Your task to perform on an android device: set the timer Image 0: 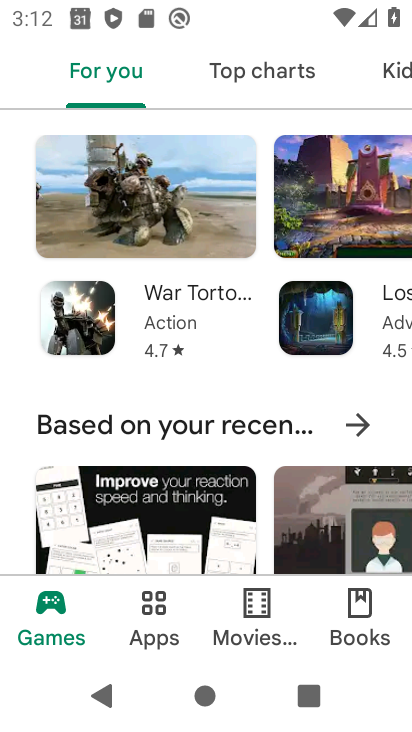
Step 0: press home button
Your task to perform on an android device: set the timer Image 1: 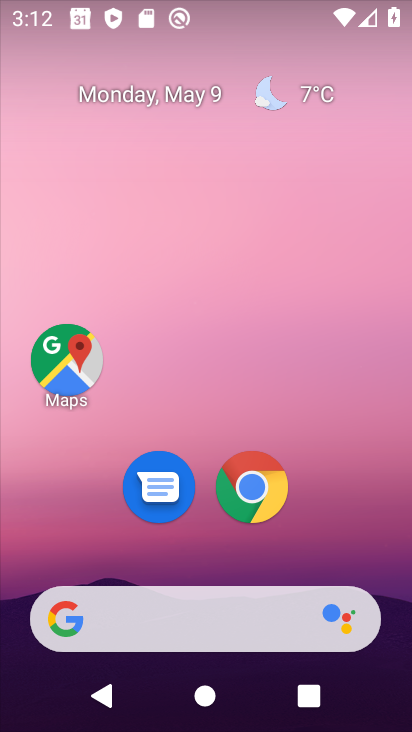
Step 1: drag from (264, 581) to (338, 12)
Your task to perform on an android device: set the timer Image 2: 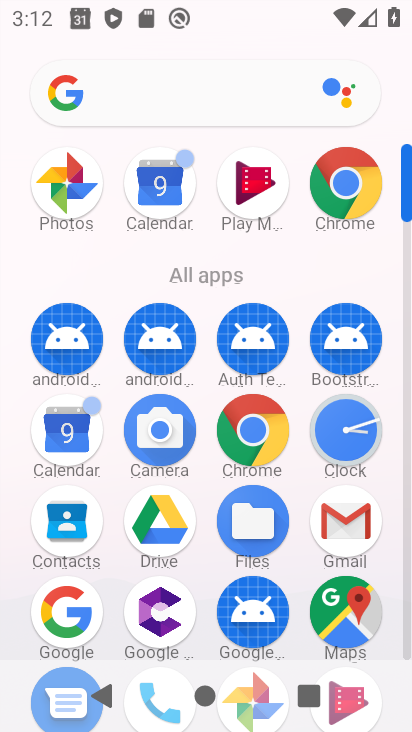
Step 2: click (346, 445)
Your task to perform on an android device: set the timer Image 3: 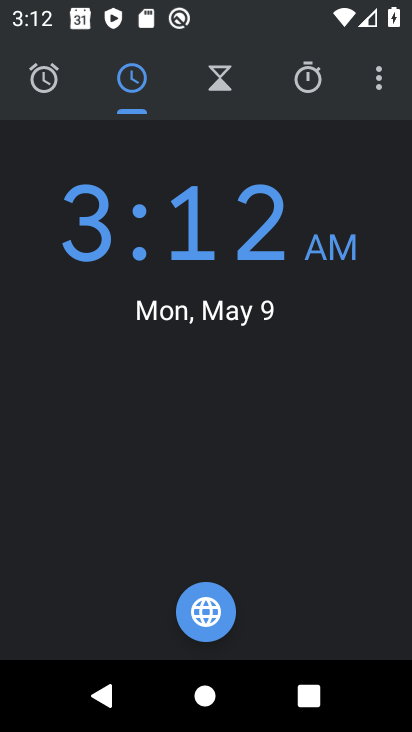
Step 3: click (310, 76)
Your task to perform on an android device: set the timer Image 4: 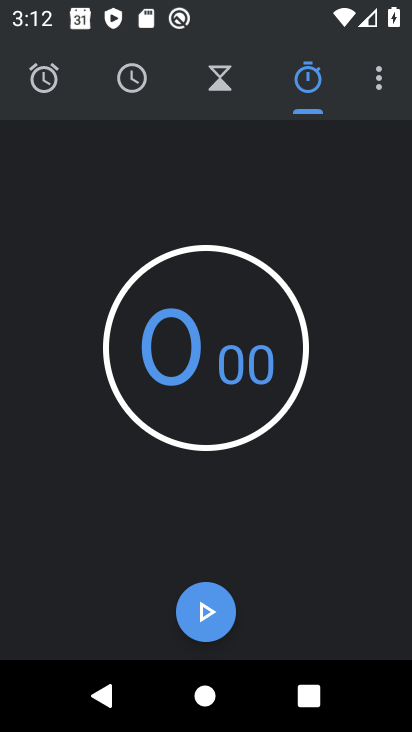
Step 4: click (191, 613)
Your task to perform on an android device: set the timer Image 5: 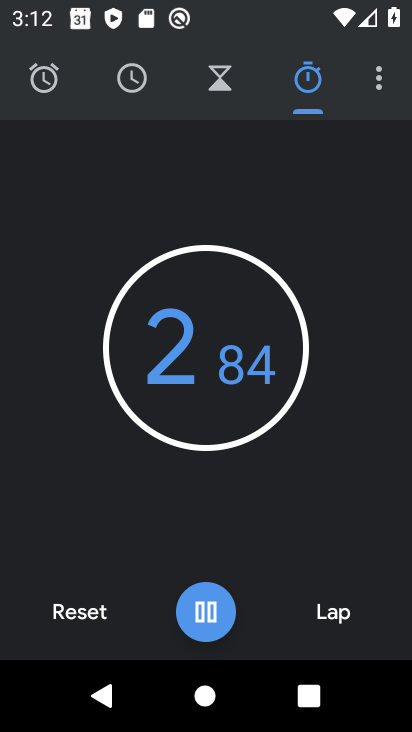
Step 5: task complete